Your task to perform on an android device: Go to Wikipedia Image 0: 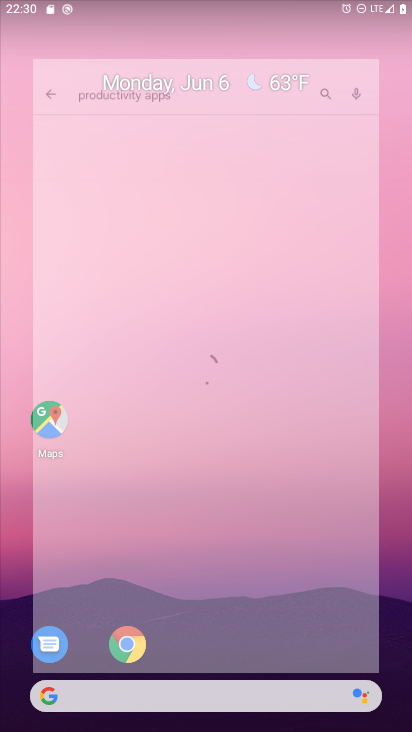
Step 0: drag from (280, 695) to (305, 214)
Your task to perform on an android device: Go to Wikipedia Image 1: 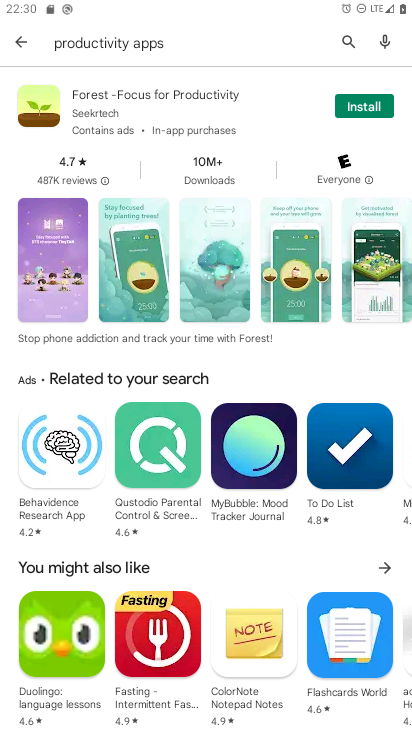
Step 1: press home button
Your task to perform on an android device: Go to Wikipedia Image 2: 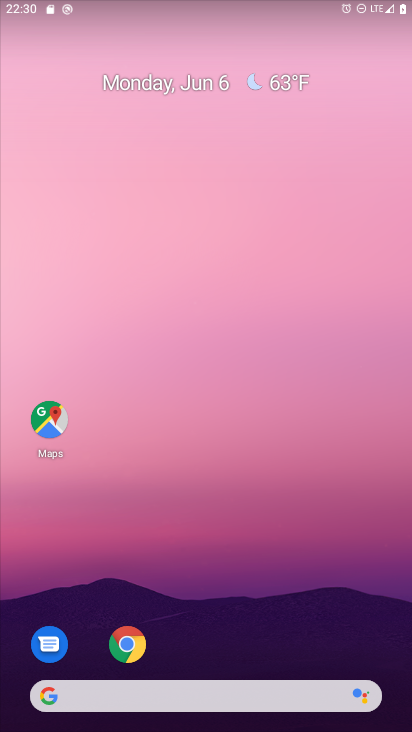
Step 2: drag from (180, 712) to (254, 150)
Your task to perform on an android device: Go to Wikipedia Image 3: 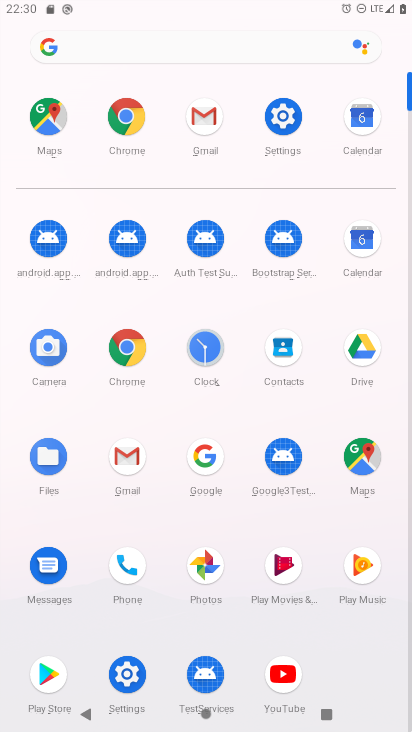
Step 3: click (121, 108)
Your task to perform on an android device: Go to Wikipedia Image 4: 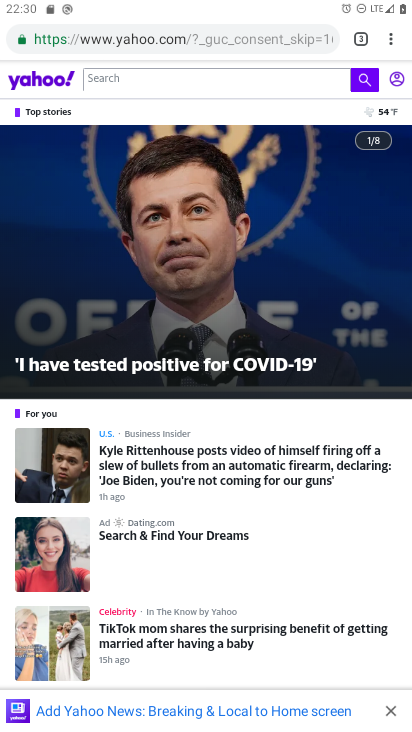
Step 4: click (361, 34)
Your task to perform on an android device: Go to Wikipedia Image 5: 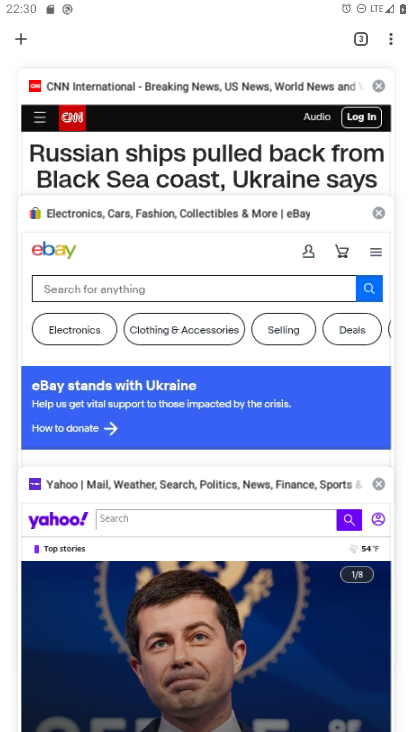
Step 5: click (27, 41)
Your task to perform on an android device: Go to Wikipedia Image 6: 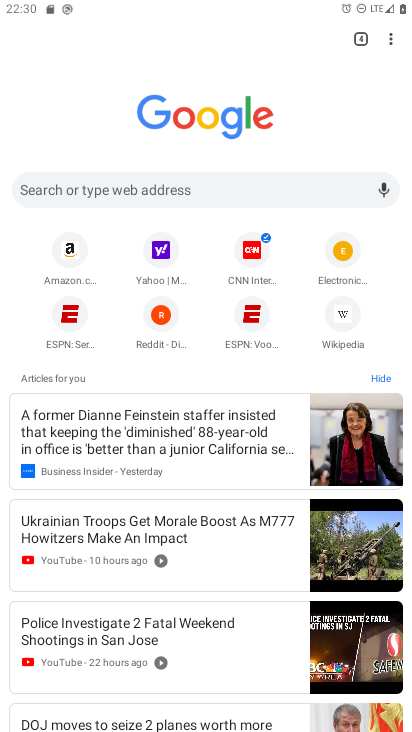
Step 6: click (332, 317)
Your task to perform on an android device: Go to Wikipedia Image 7: 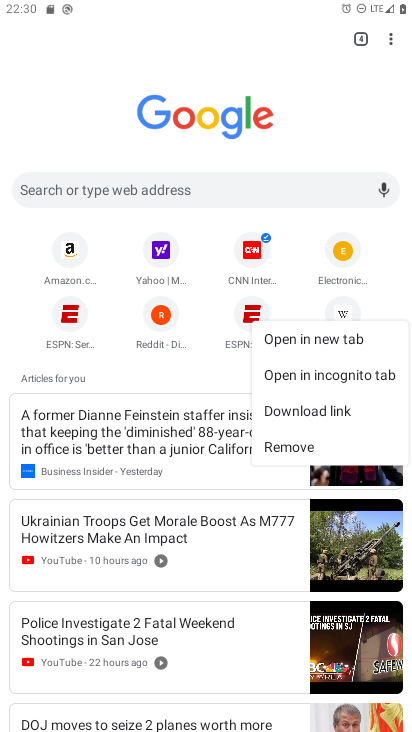
Step 7: click (338, 319)
Your task to perform on an android device: Go to Wikipedia Image 8: 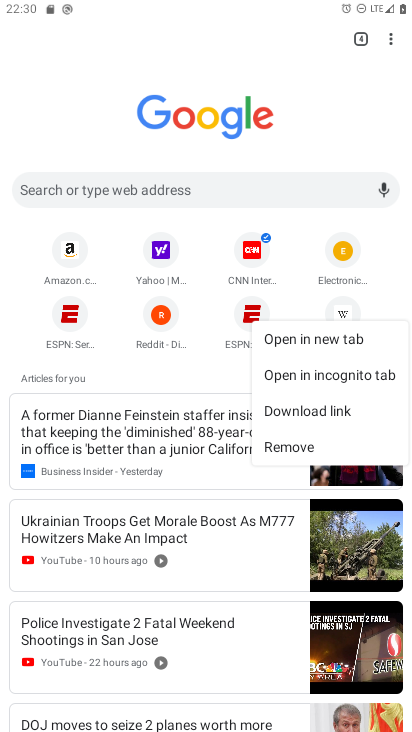
Step 8: click (338, 313)
Your task to perform on an android device: Go to Wikipedia Image 9: 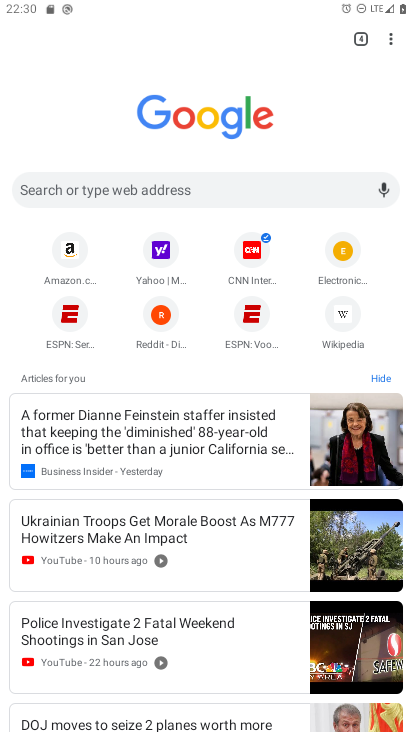
Step 9: click (338, 313)
Your task to perform on an android device: Go to Wikipedia Image 10: 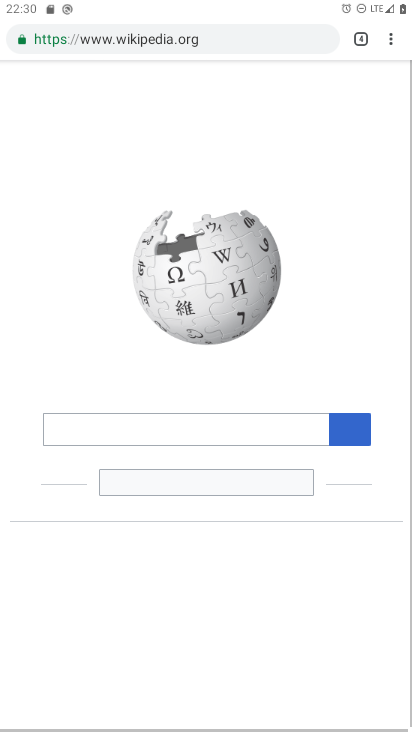
Step 10: task complete